Your task to perform on an android device: change the clock display to digital Image 0: 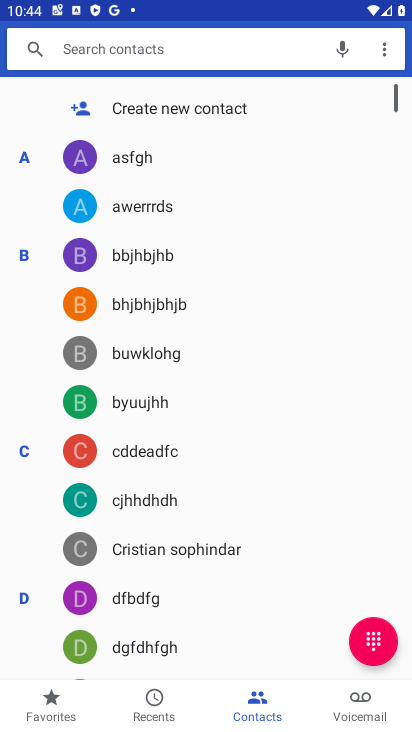
Step 0: press home button
Your task to perform on an android device: change the clock display to digital Image 1: 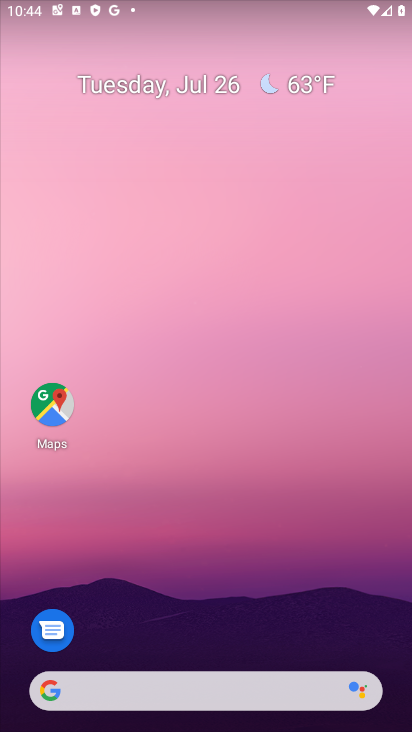
Step 1: drag from (256, 586) to (138, 84)
Your task to perform on an android device: change the clock display to digital Image 2: 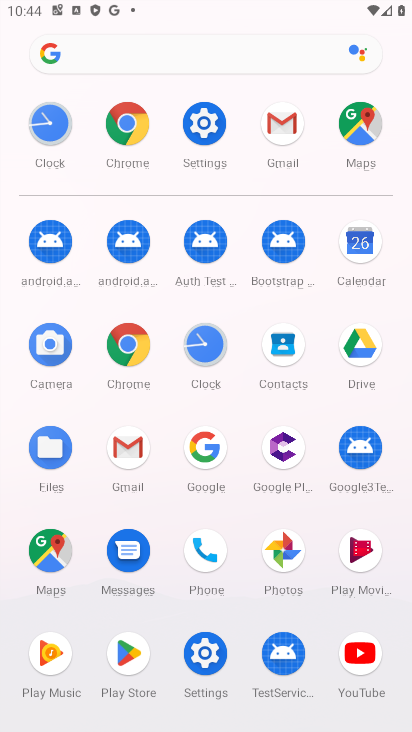
Step 2: click (216, 354)
Your task to perform on an android device: change the clock display to digital Image 3: 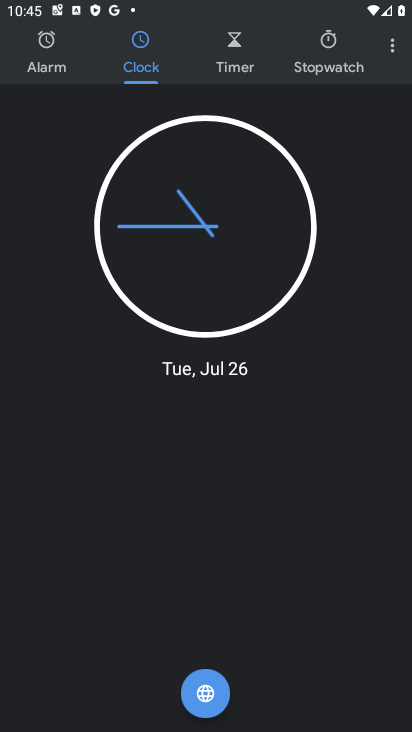
Step 3: click (393, 44)
Your task to perform on an android device: change the clock display to digital Image 4: 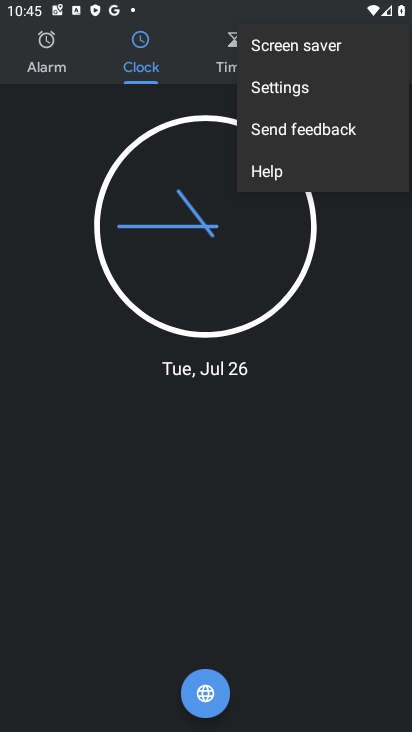
Step 4: click (283, 85)
Your task to perform on an android device: change the clock display to digital Image 5: 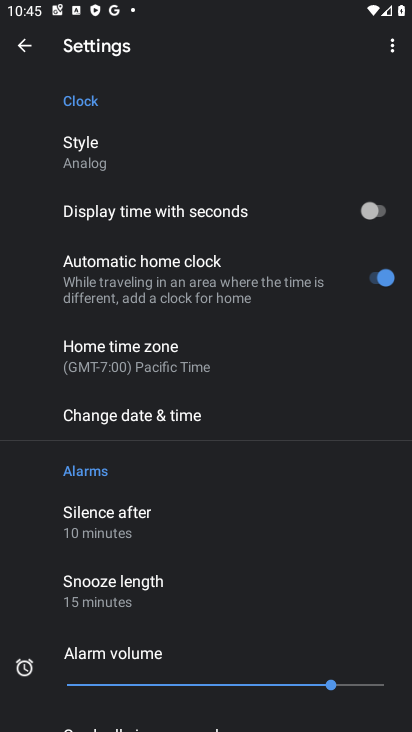
Step 5: click (67, 155)
Your task to perform on an android device: change the clock display to digital Image 6: 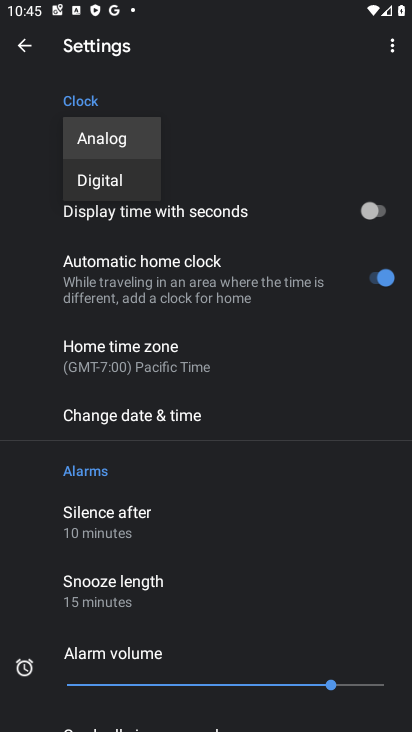
Step 6: click (111, 188)
Your task to perform on an android device: change the clock display to digital Image 7: 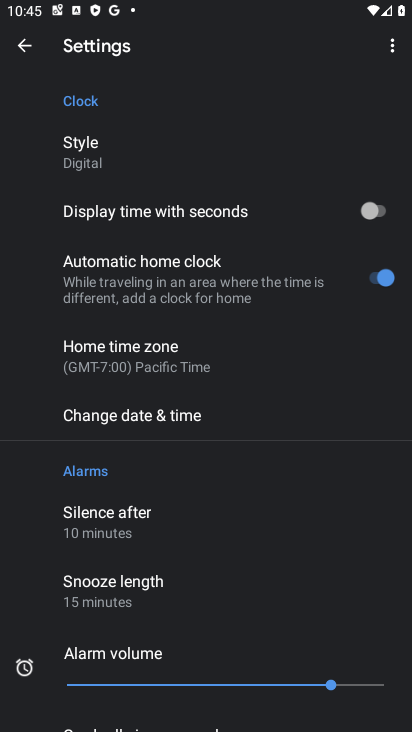
Step 7: task complete